Your task to perform on an android device: check google app version Image 0: 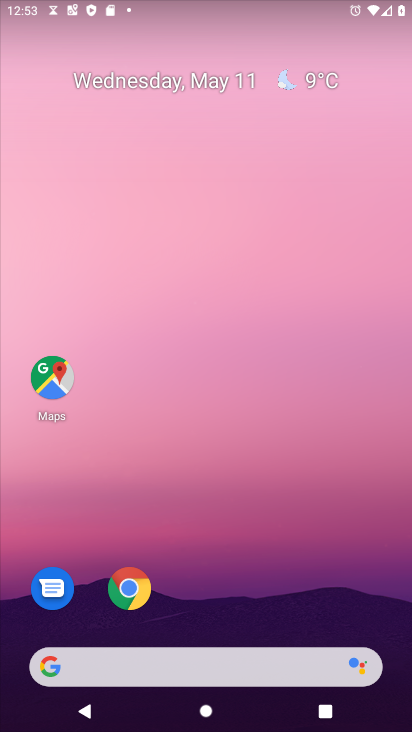
Step 0: drag from (311, 606) to (302, 7)
Your task to perform on an android device: check google app version Image 1: 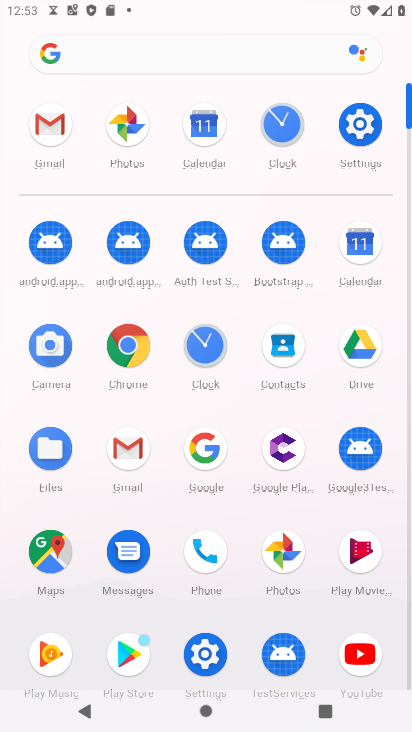
Step 1: click (203, 461)
Your task to perform on an android device: check google app version Image 2: 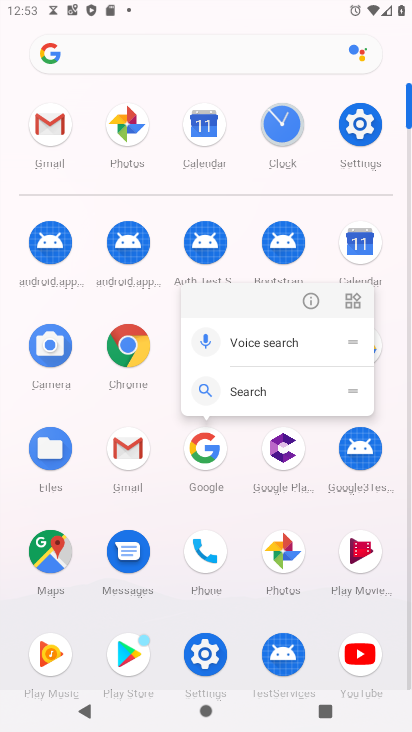
Step 2: click (306, 307)
Your task to perform on an android device: check google app version Image 3: 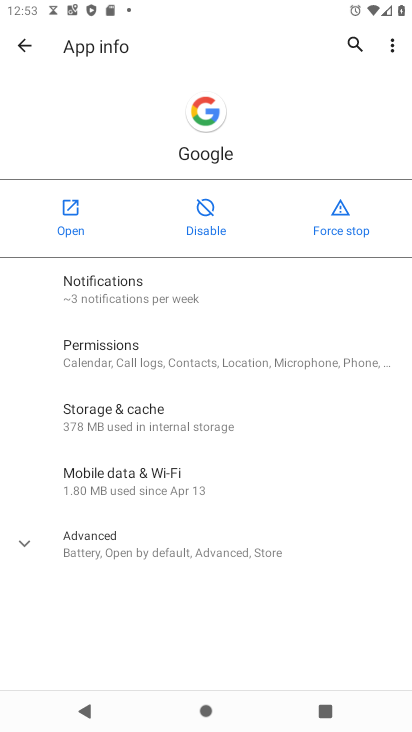
Step 3: click (28, 546)
Your task to perform on an android device: check google app version Image 4: 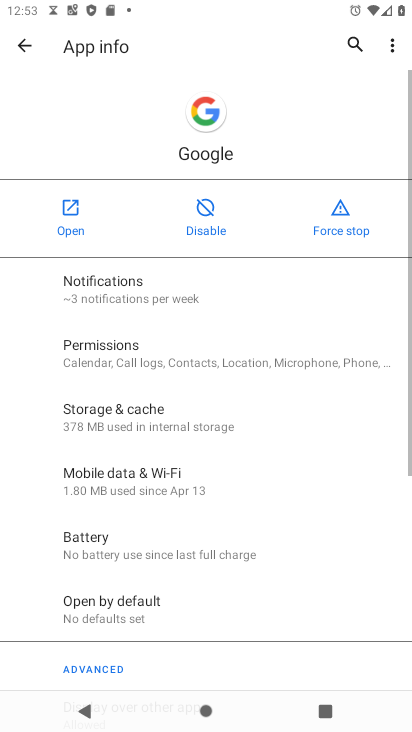
Step 4: task complete